Your task to perform on an android device: Go to wifi settings Image 0: 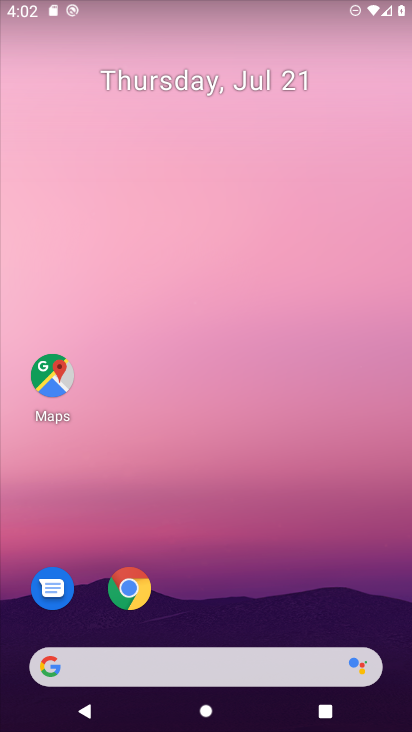
Step 0: press home button
Your task to perform on an android device: Go to wifi settings Image 1: 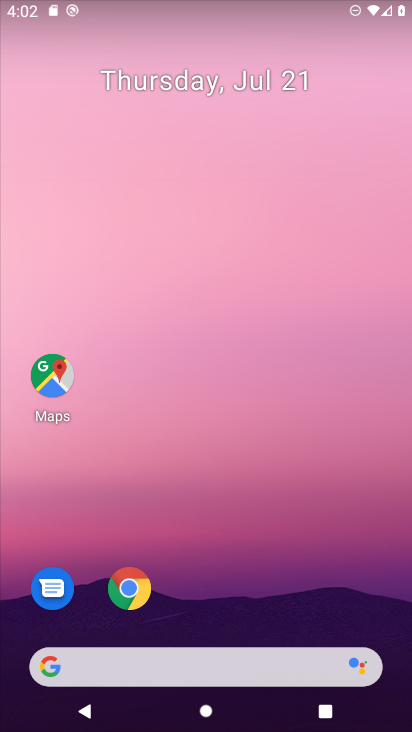
Step 1: drag from (197, 627) to (192, 4)
Your task to perform on an android device: Go to wifi settings Image 2: 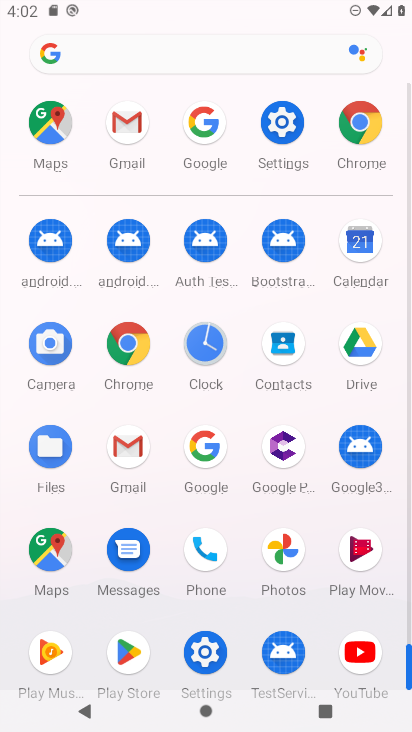
Step 2: click (271, 138)
Your task to perform on an android device: Go to wifi settings Image 3: 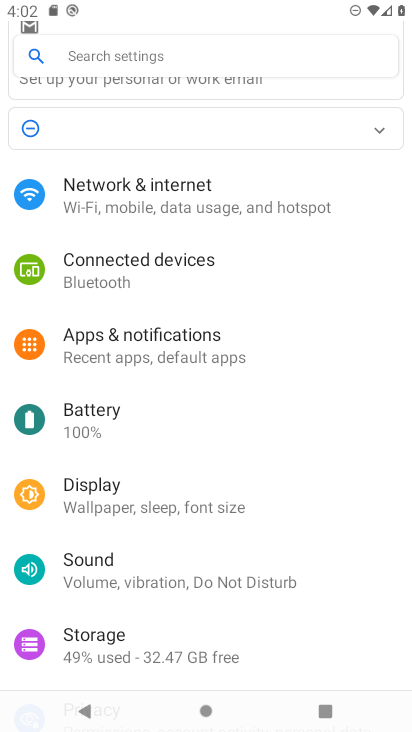
Step 3: click (148, 200)
Your task to perform on an android device: Go to wifi settings Image 4: 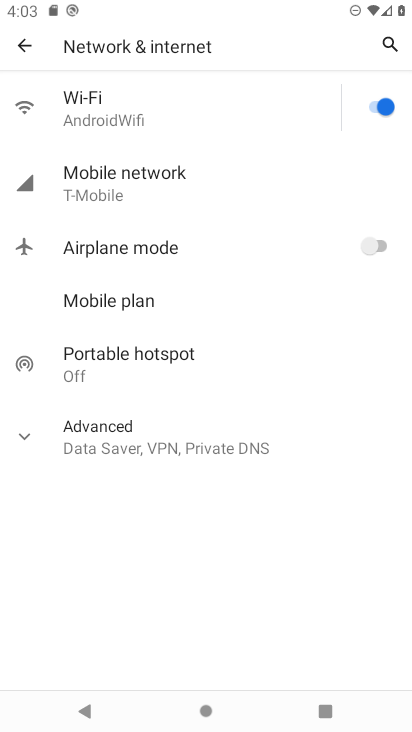
Step 4: click (127, 119)
Your task to perform on an android device: Go to wifi settings Image 5: 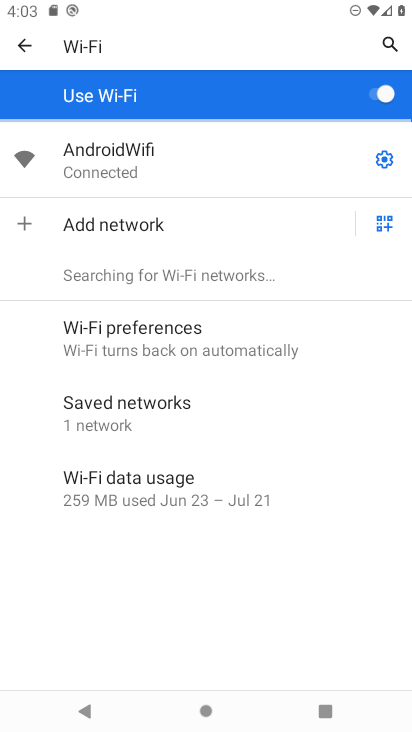
Step 5: task complete